Your task to perform on an android device: See recent photos Image 0: 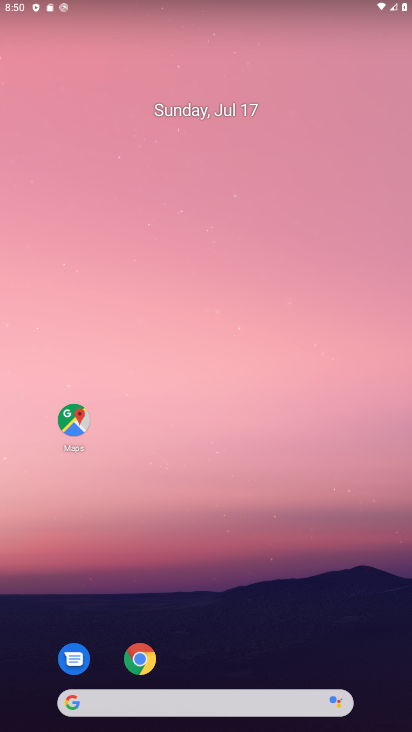
Step 0: drag from (178, 700) to (184, 260)
Your task to perform on an android device: See recent photos Image 1: 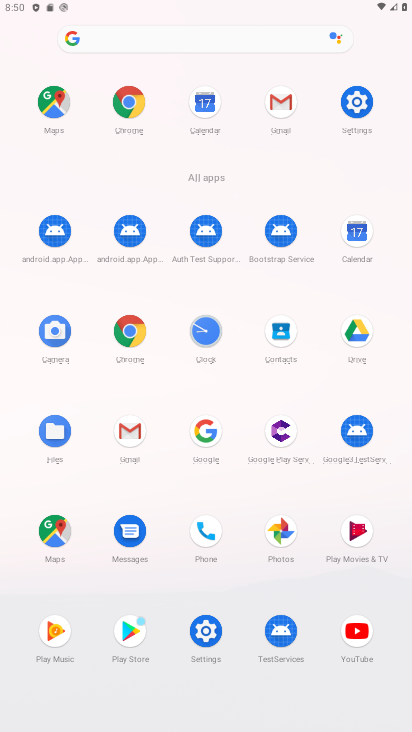
Step 1: click (282, 532)
Your task to perform on an android device: See recent photos Image 2: 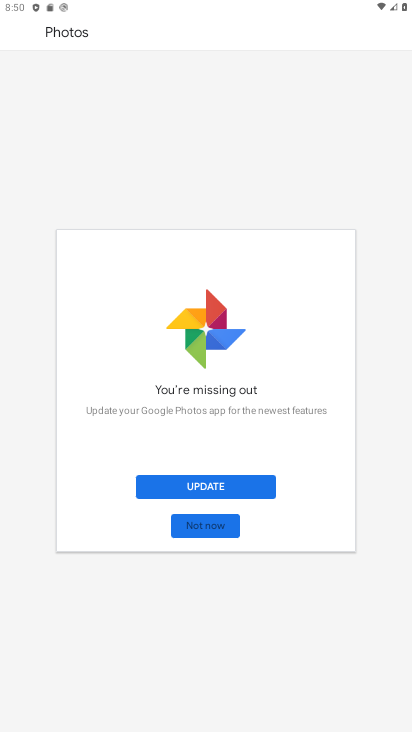
Step 2: click (209, 491)
Your task to perform on an android device: See recent photos Image 3: 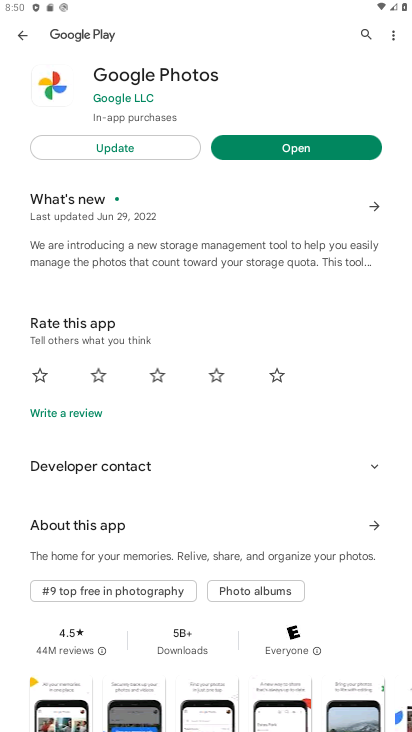
Step 3: click (90, 149)
Your task to perform on an android device: See recent photos Image 4: 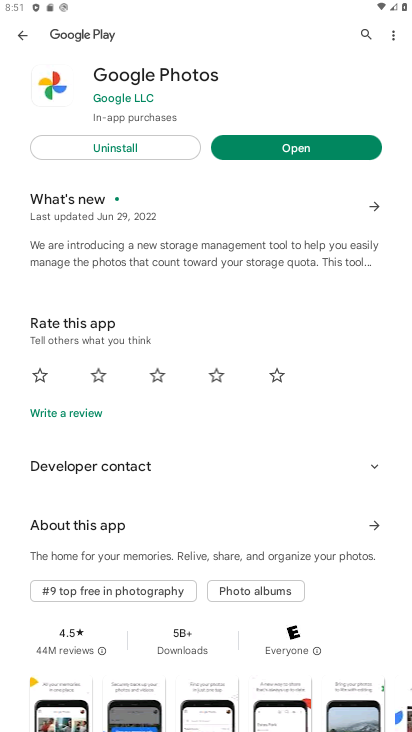
Step 4: click (296, 155)
Your task to perform on an android device: See recent photos Image 5: 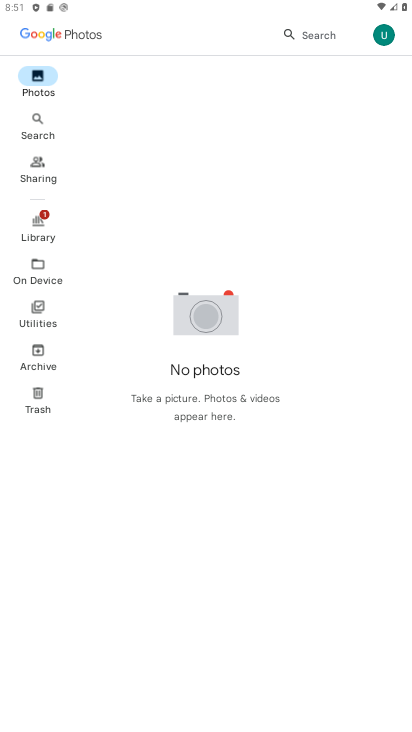
Step 5: click (42, 126)
Your task to perform on an android device: See recent photos Image 6: 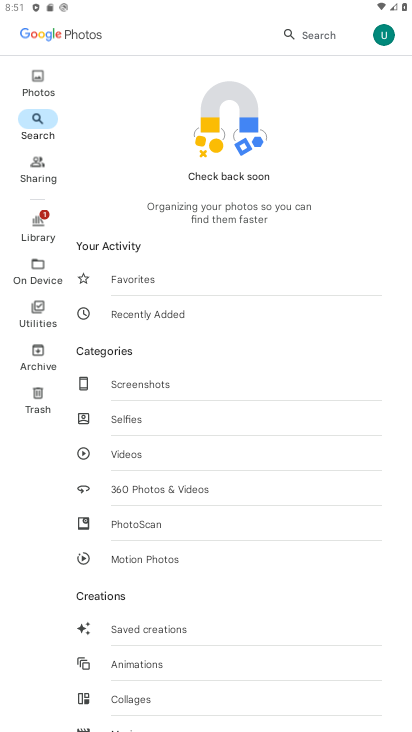
Step 6: click (29, 179)
Your task to perform on an android device: See recent photos Image 7: 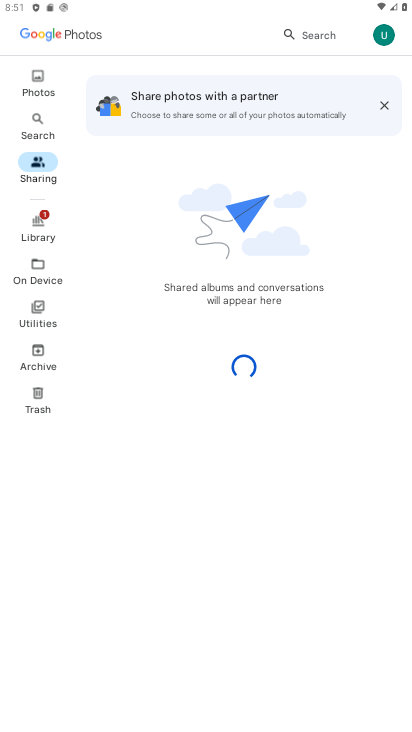
Step 7: click (38, 236)
Your task to perform on an android device: See recent photos Image 8: 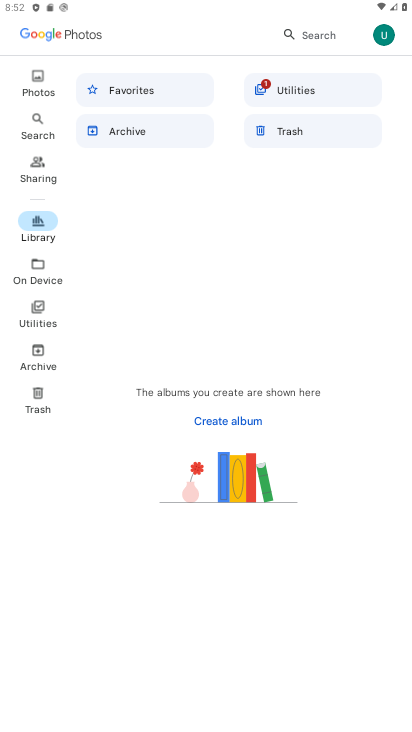
Step 8: click (33, 269)
Your task to perform on an android device: See recent photos Image 9: 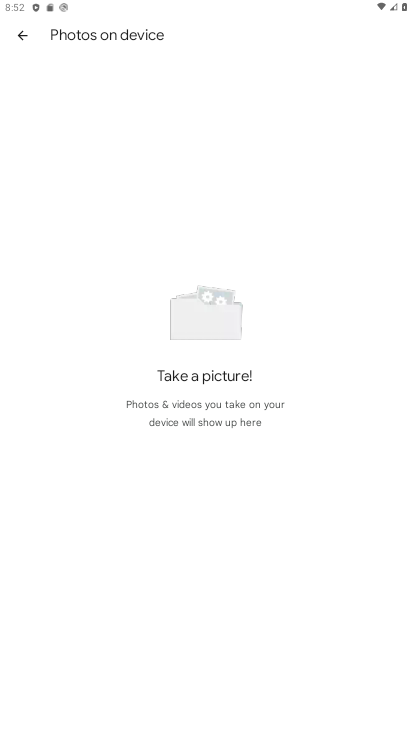
Step 9: click (28, 34)
Your task to perform on an android device: See recent photos Image 10: 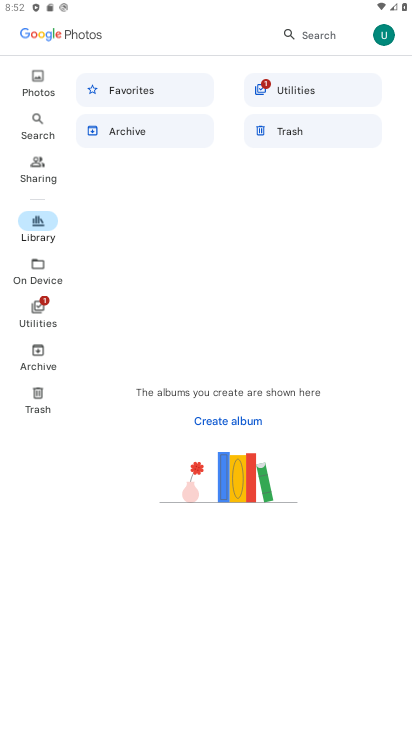
Step 10: click (35, 269)
Your task to perform on an android device: See recent photos Image 11: 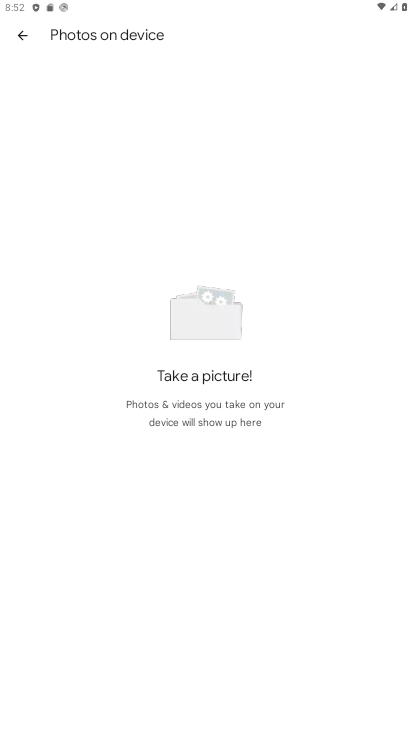
Step 11: press back button
Your task to perform on an android device: See recent photos Image 12: 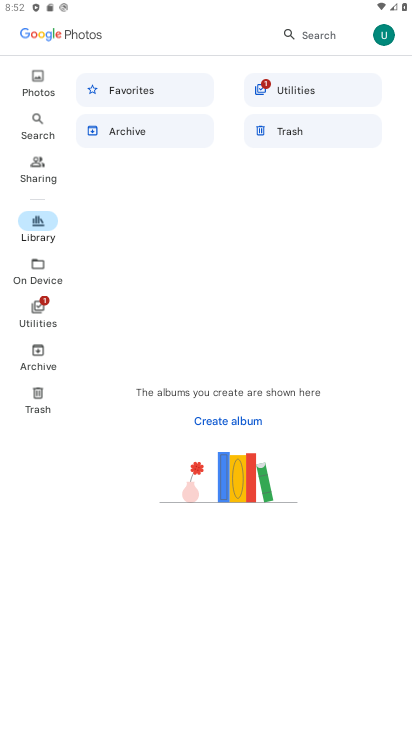
Step 12: click (38, 317)
Your task to perform on an android device: See recent photos Image 13: 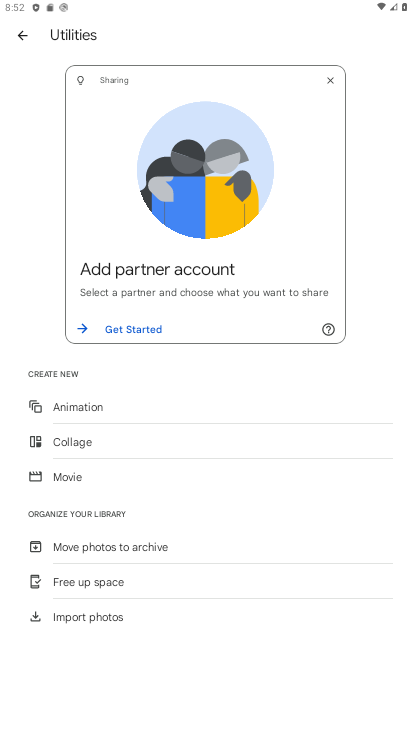
Step 13: press back button
Your task to perform on an android device: See recent photos Image 14: 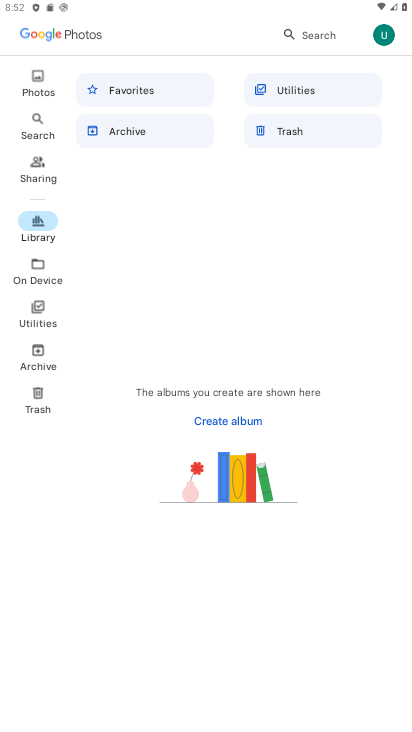
Step 14: click (40, 281)
Your task to perform on an android device: See recent photos Image 15: 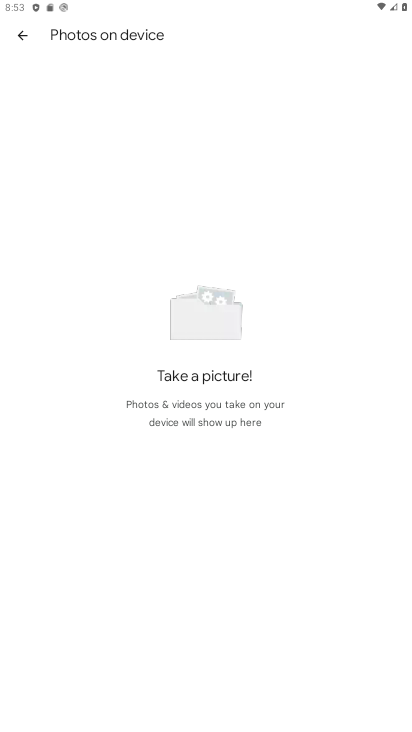
Step 15: task complete